Your task to perform on an android device: turn on notifications settings in the gmail app Image 0: 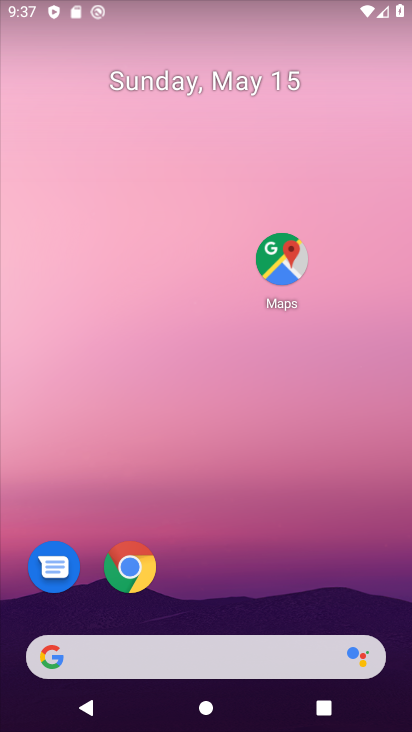
Step 0: drag from (258, 553) to (219, 160)
Your task to perform on an android device: turn on notifications settings in the gmail app Image 1: 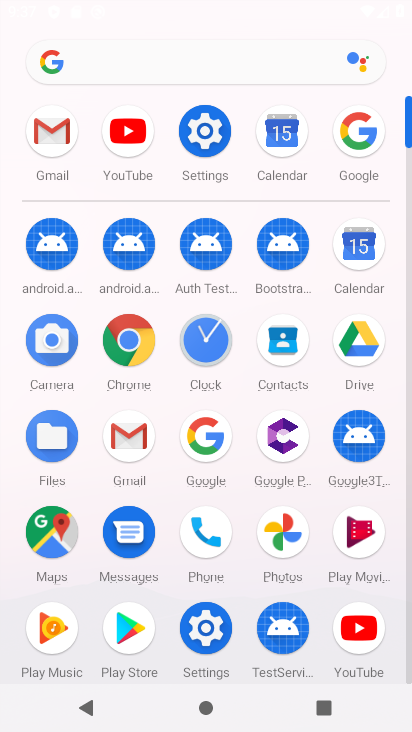
Step 1: click (51, 128)
Your task to perform on an android device: turn on notifications settings in the gmail app Image 2: 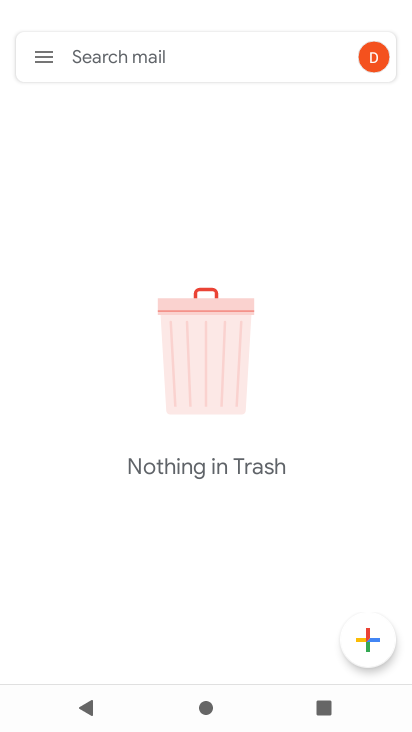
Step 2: click (49, 59)
Your task to perform on an android device: turn on notifications settings in the gmail app Image 3: 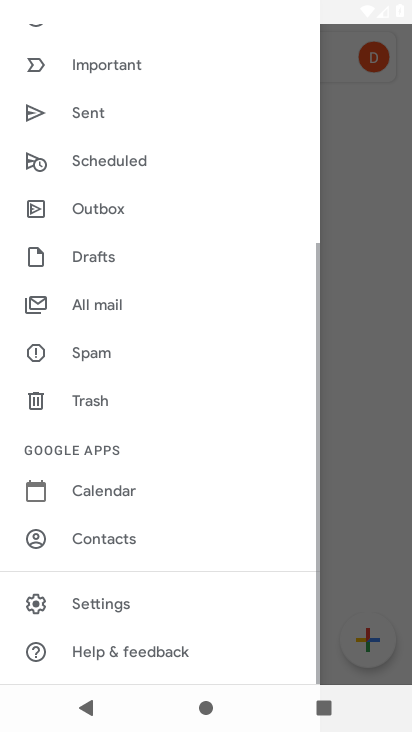
Step 3: click (115, 592)
Your task to perform on an android device: turn on notifications settings in the gmail app Image 4: 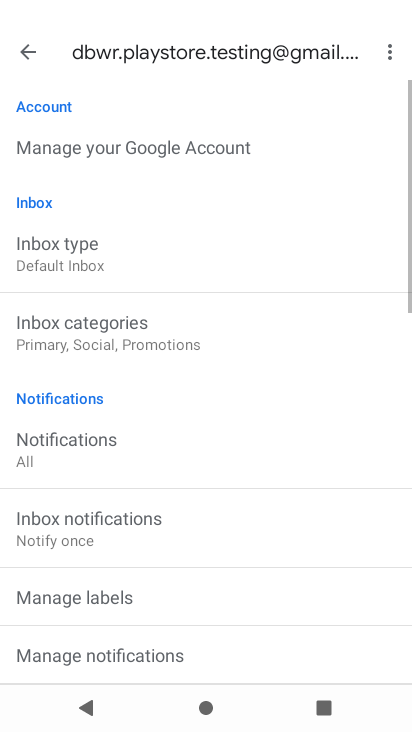
Step 4: drag from (197, 564) to (196, 306)
Your task to perform on an android device: turn on notifications settings in the gmail app Image 5: 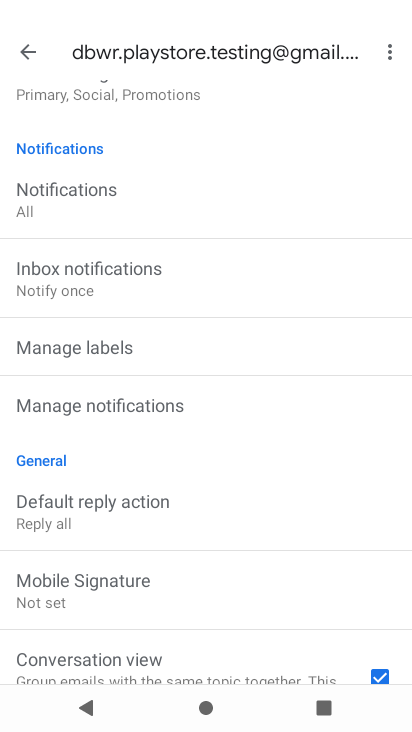
Step 5: click (109, 211)
Your task to perform on an android device: turn on notifications settings in the gmail app Image 6: 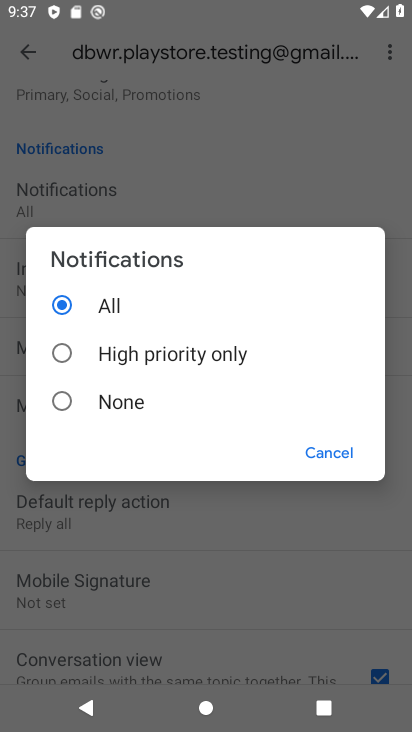
Step 6: task complete